Your task to perform on an android device: open sync settings in chrome Image 0: 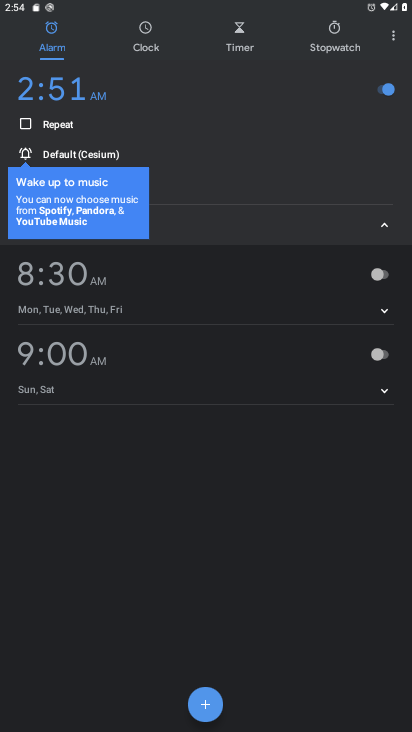
Step 0: press home button
Your task to perform on an android device: open sync settings in chrome Image 1: 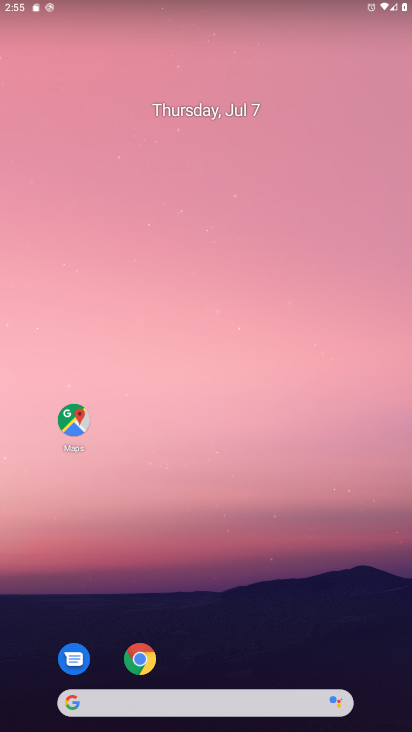
Step 1: click (131, 665)
Your task to perform on an android device: open sync settings in chrome Image 2: 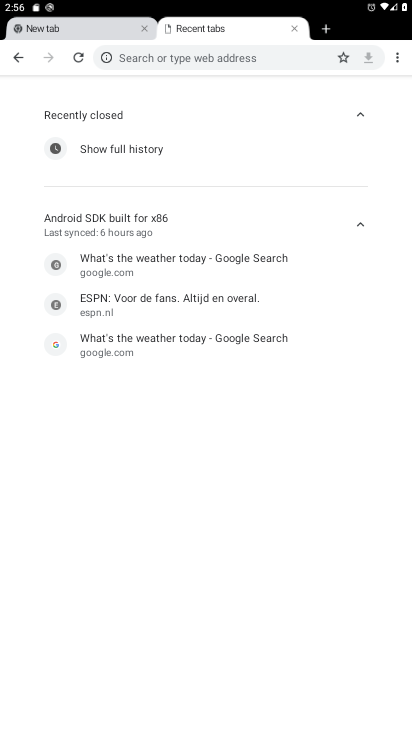
Step 2: drag from (404, 53) to (330, 289)
Your task to perform on an android device: open sync settings in chrome Image 3: 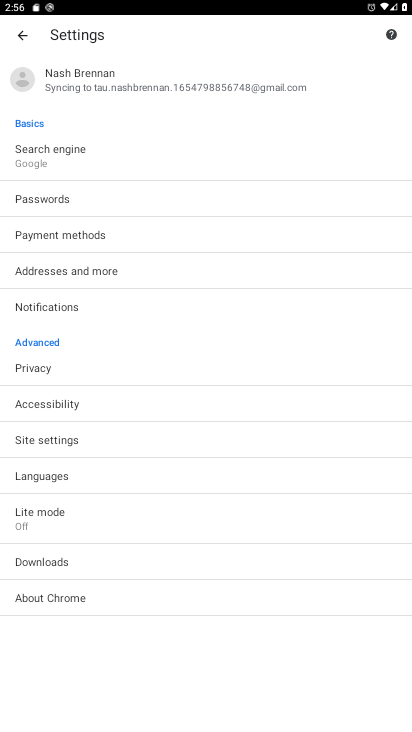
Step 3: click (93, 88)
Your task to perform on an android device: open sync settings in chrome Image 4: 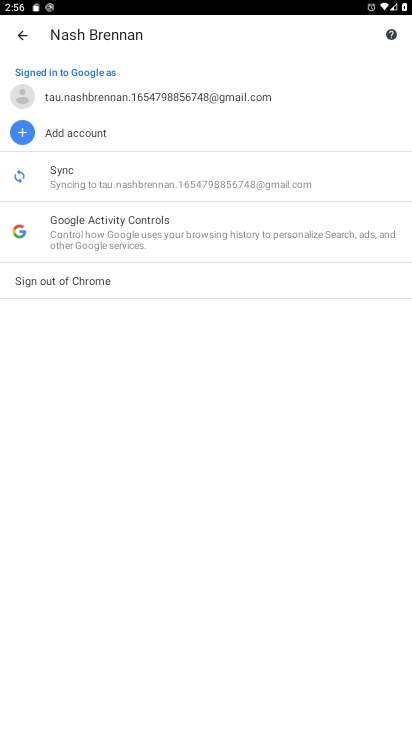
Step 4: click (101, 180)
Your task to perform on an android device: open sync settings in chrome Image 5: 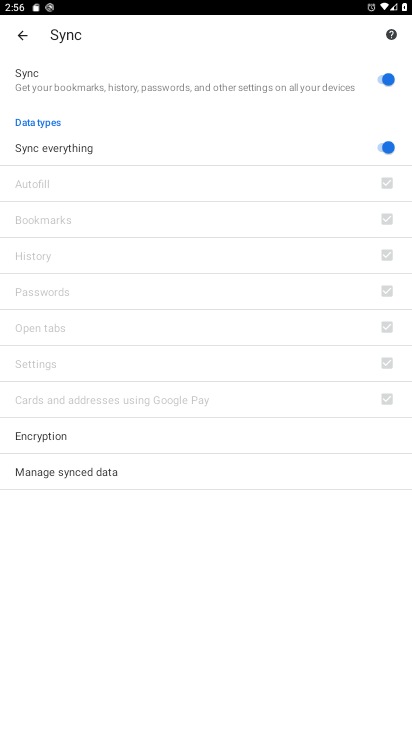
Step 5: task complete